Your task to perform on an android device: Search for Mexican restaurants on Maps Image 0: 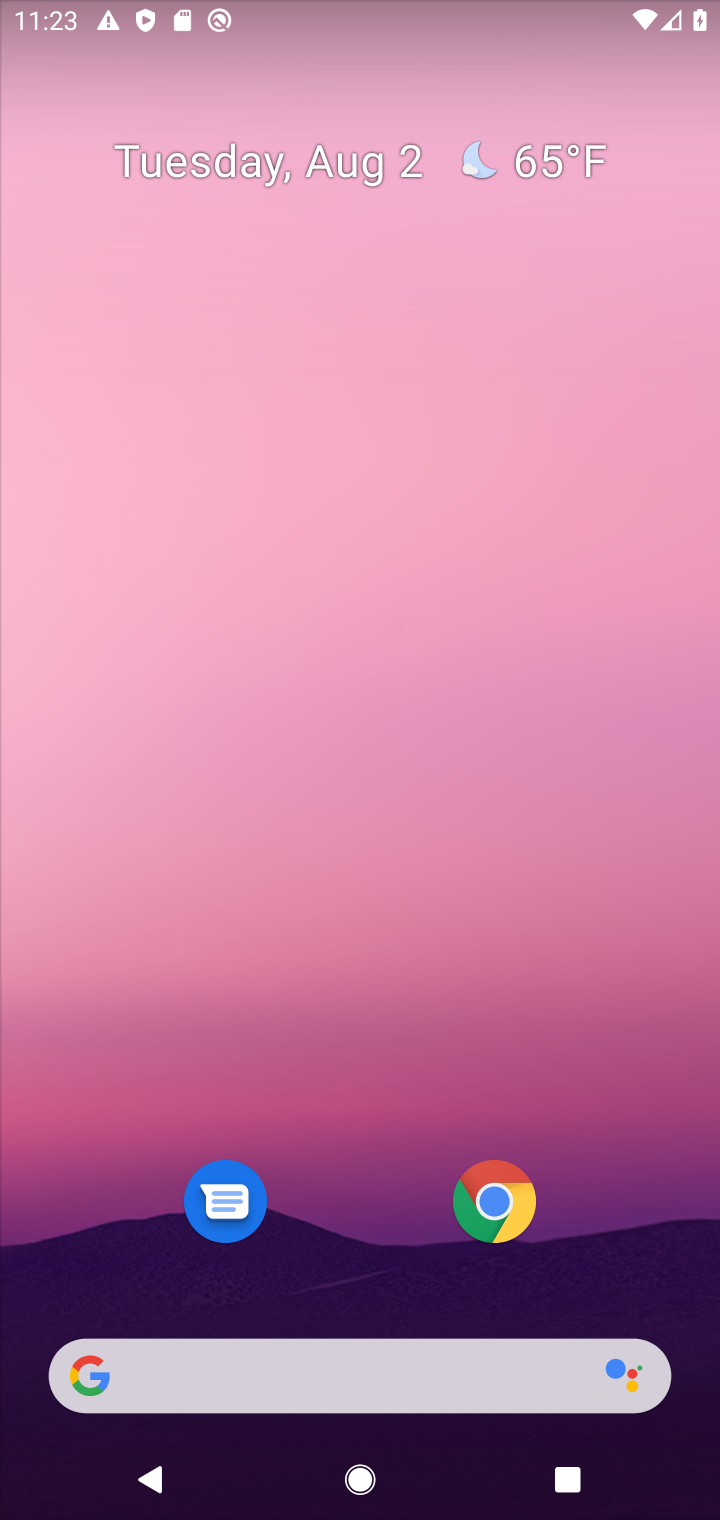
Step 0: drag from (393, 1071) to (393, 268)
Your task to perform on an android device: Search for Mexican restaurants on Maps Image 1: 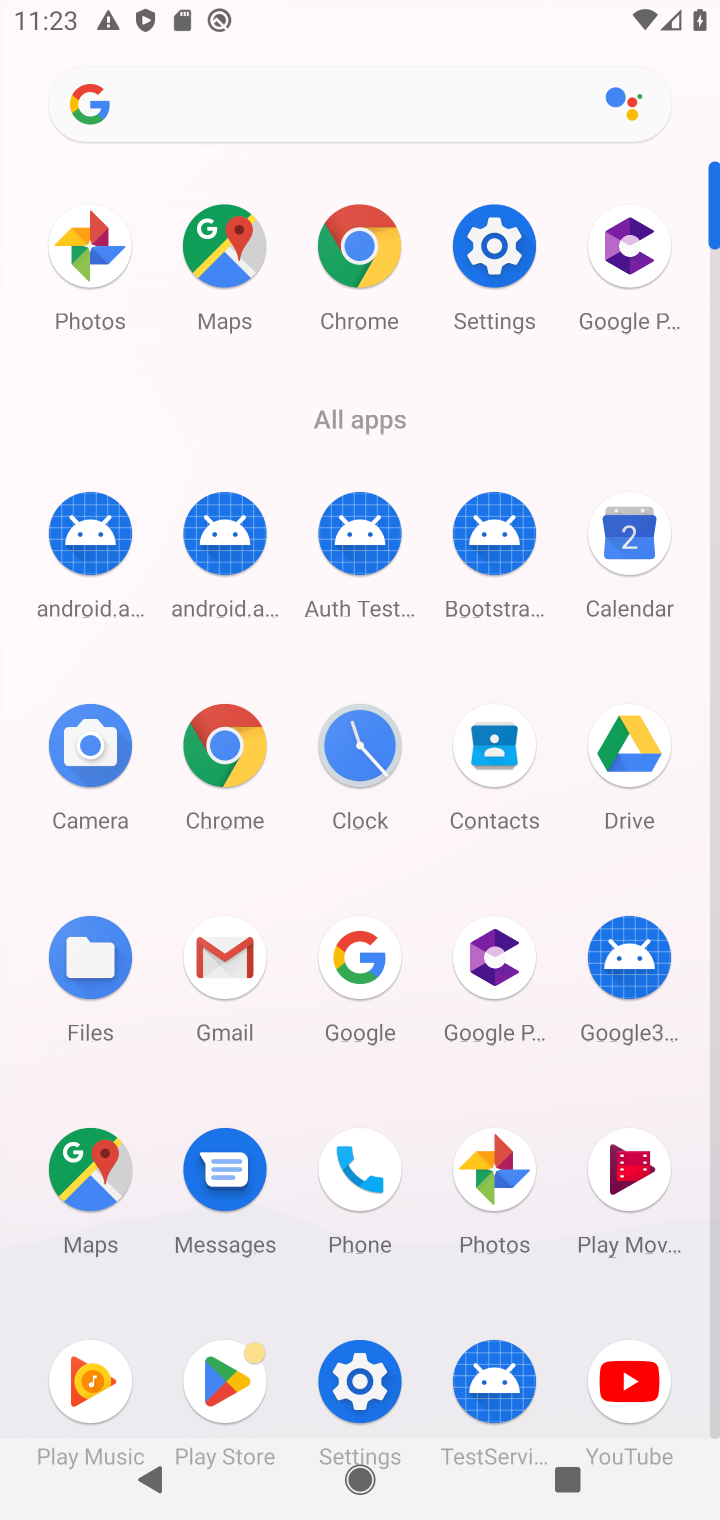
Step 1: click (100, 1161)
Your task to perform on an android device: Search for Mexican restaurants on Maps Image 2: 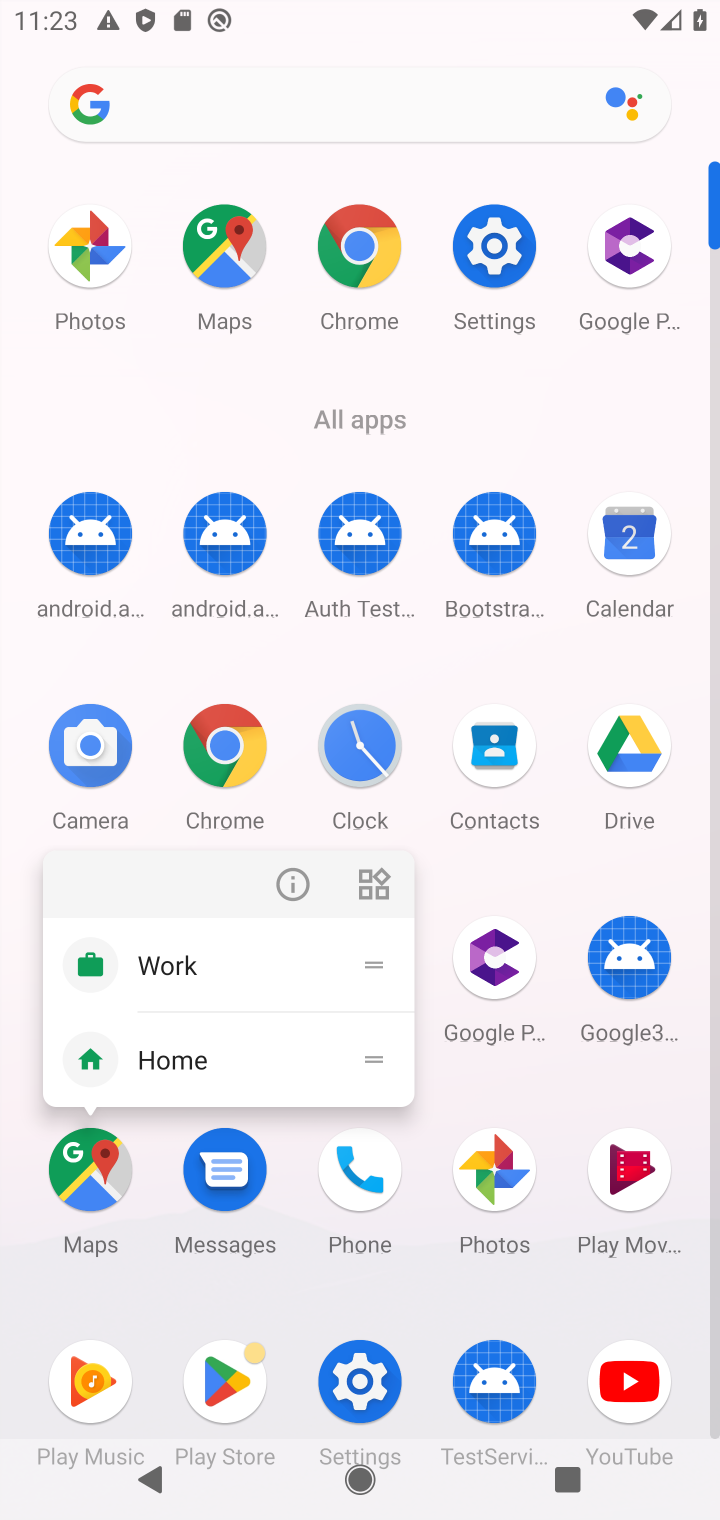
Step 2: click (98, 1159)
Your task to perform on an android device: Search for Mexican restaurants on Maps Image 3: 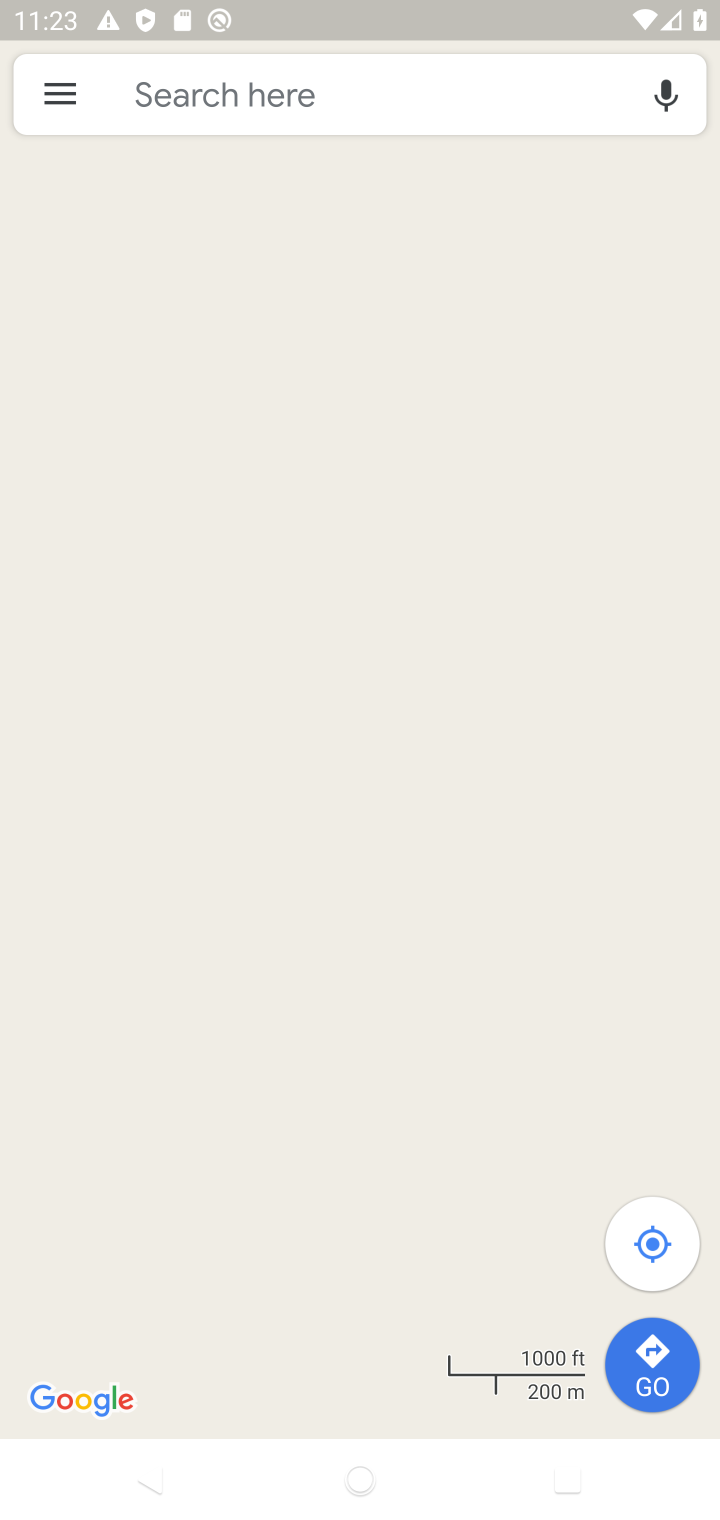
Step 3: click (334, 109)
Your task to perform on an android device: Search for Mexican restaurants on Maps Image 4: 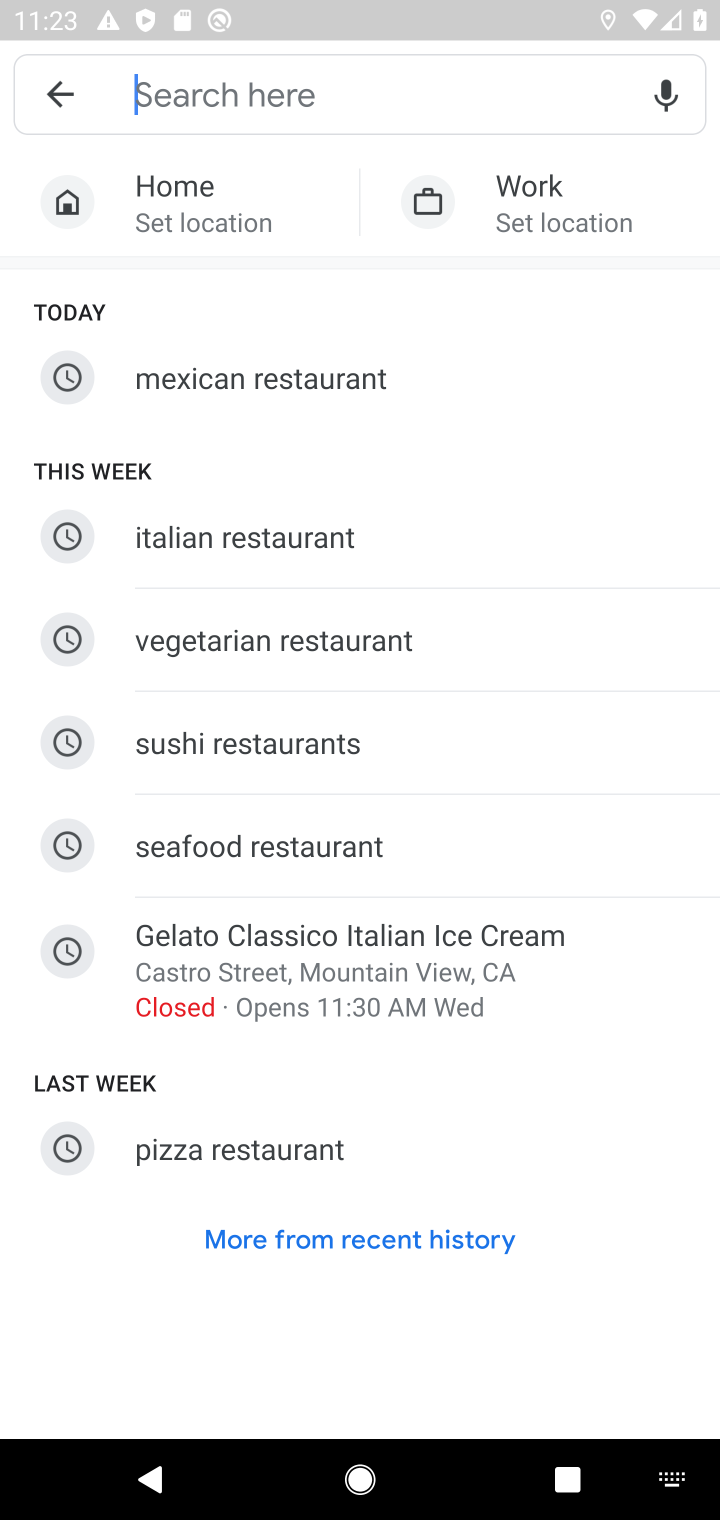
Step 4: click (214, 409)
Your task to perform on an android device: Search for Mexican restaurants on Maps Image 5: 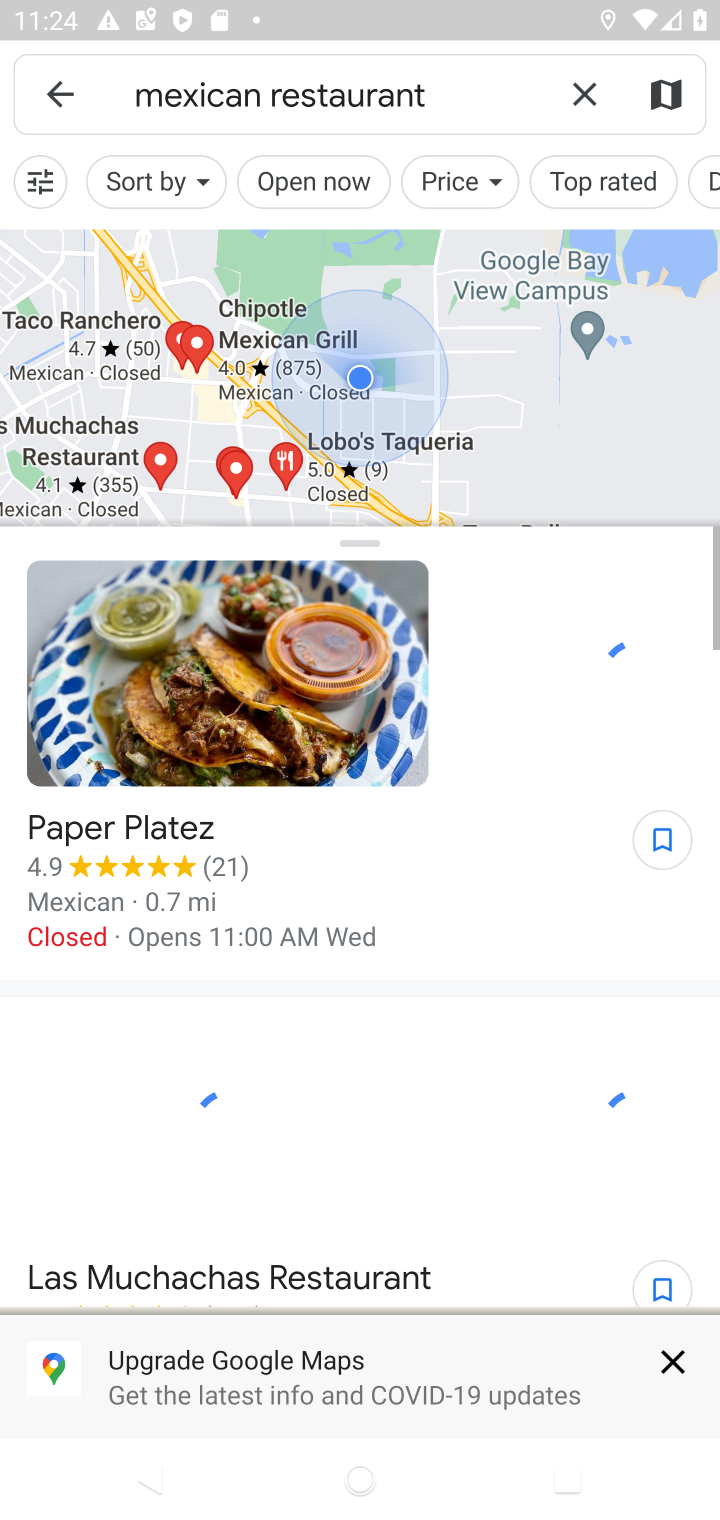
Step 5: task complete